Your task to perform on an android device: check out phone information Image 0: 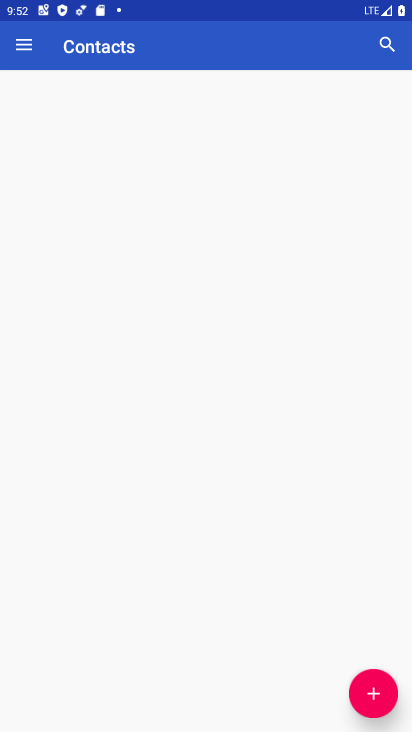
Step 0: press back button
Your task to perform on an android device: check out phone information Image 1: 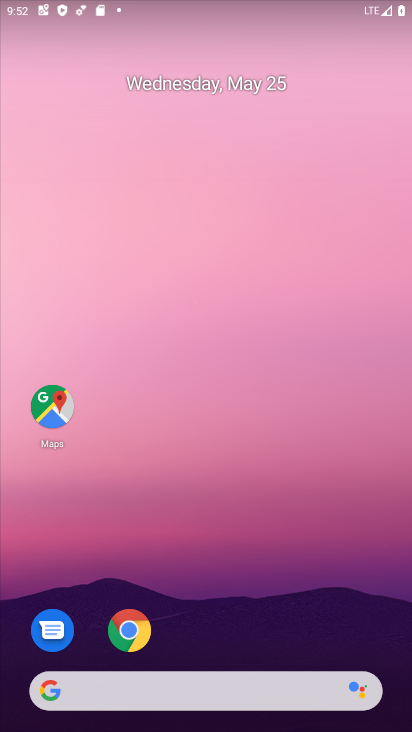
Step 1: drag from (260, 623) to (278, 92)
Your task to perform on an android device: check out phone information Image 2: 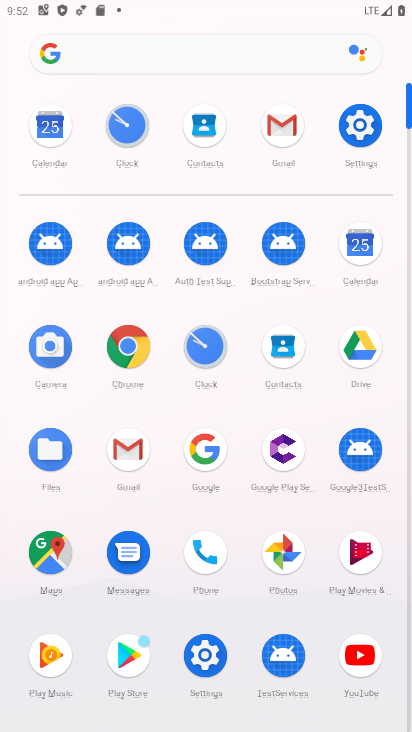
Step 2: click (354, 128)
Your task to perform on an android device: check out phone information Image 3: 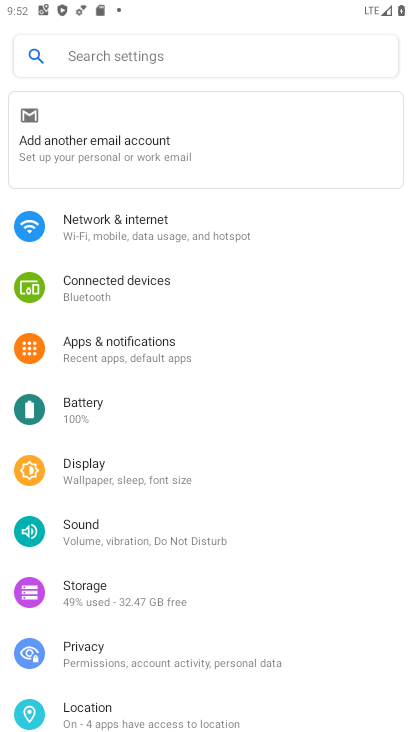
Step 3: drag from (176, 591) to (261, 0)
Your task to perform on an android device: check out phone information Image 4: 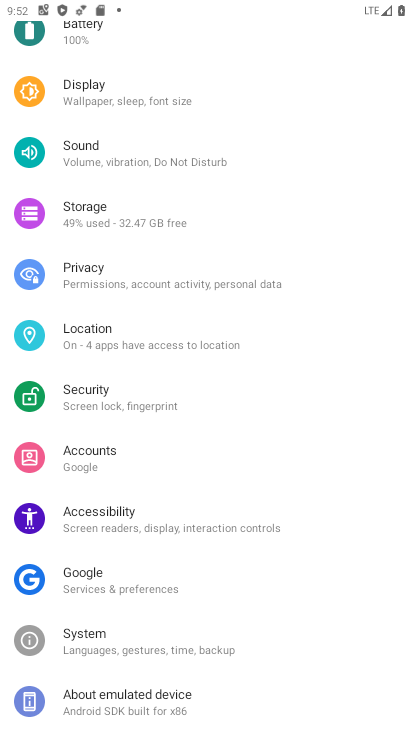
Step 4: drag from (174, 585) to (287, 35)
Your task to perform on an android device: check out phone information Image 5: 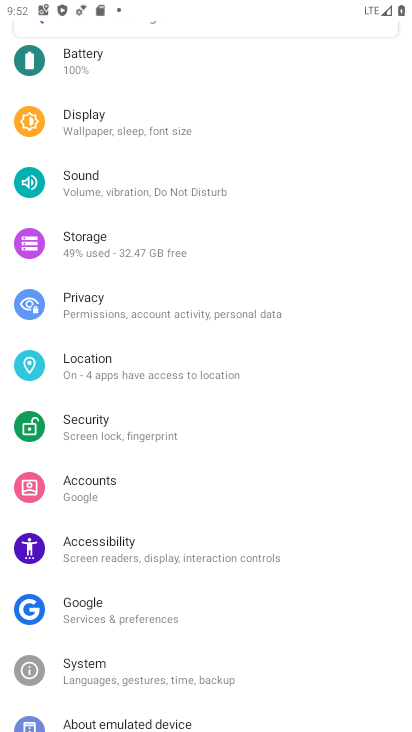
Step 5: click (116, 704)
Your task to perform on an android device: check out phone information Image 6: 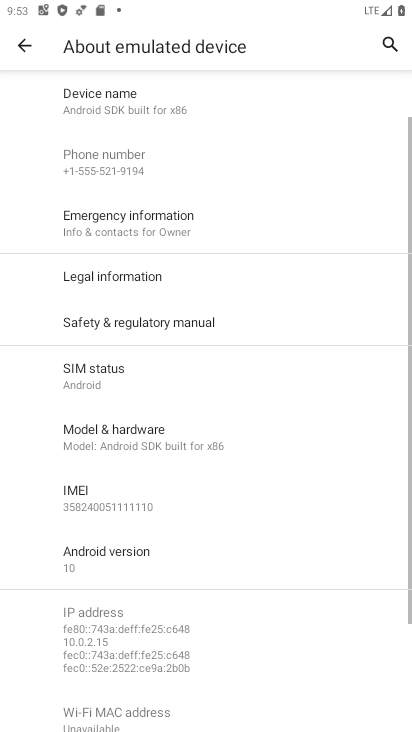
Step 6: task complete